Your task to perform on an android device: Open Chrome and go to settings Image 0: 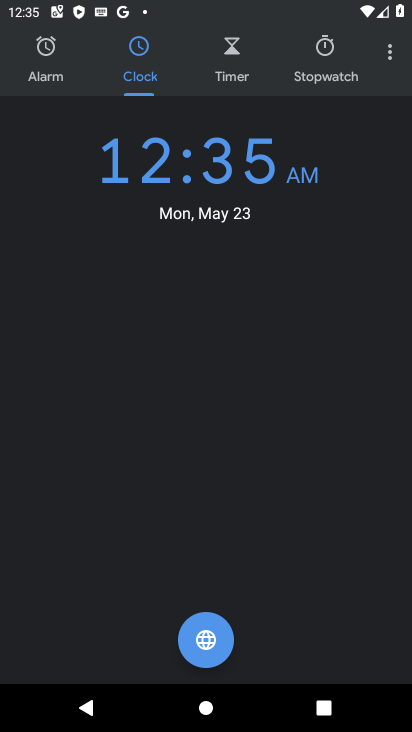
Step 0: click (395, 64)
Your task to perform on an android device: Open Chrome and go to settings Image 1: 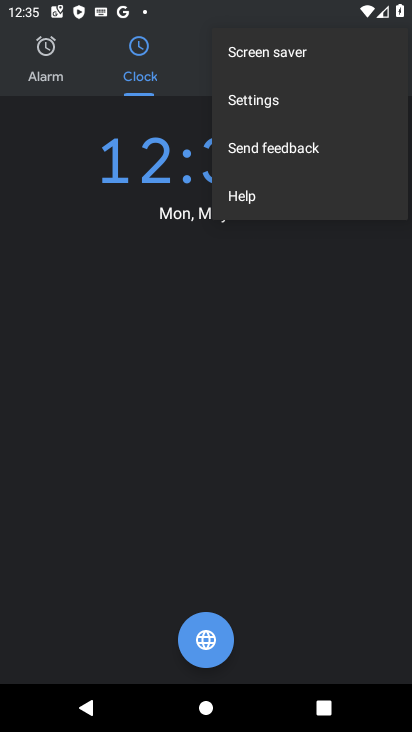
Step 1: press home button
Your task to perform on an android device: Open Chrome and go to settings Image 2: 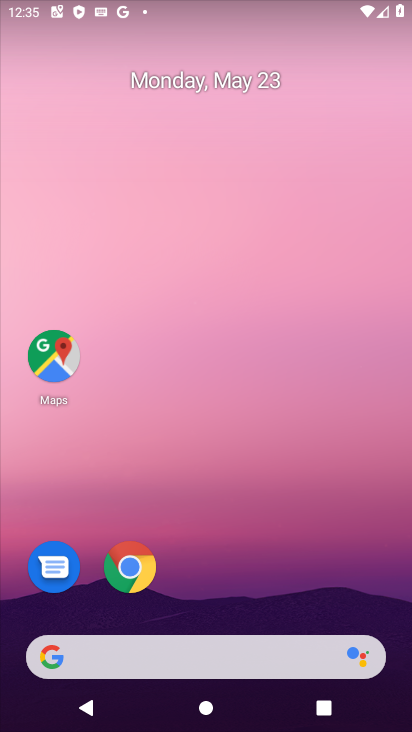
Step 2: click (138, 570)
Your task to perform on an android device: Open Chrome and go to settings Image 3: 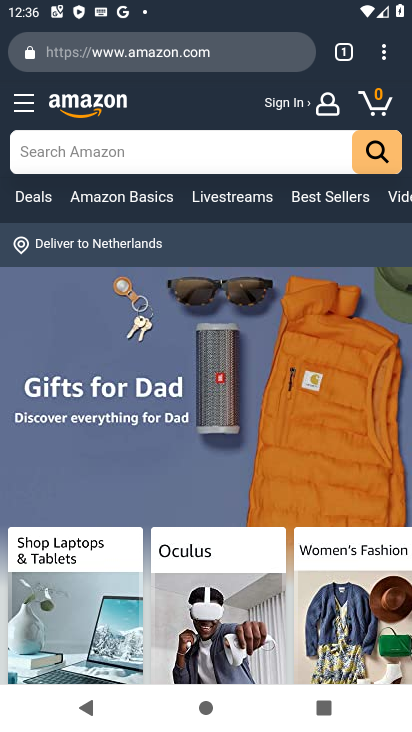
Step 3: click (392, 58)
Your task to perform on an android device: Open Chrome and go to settings Image 4: 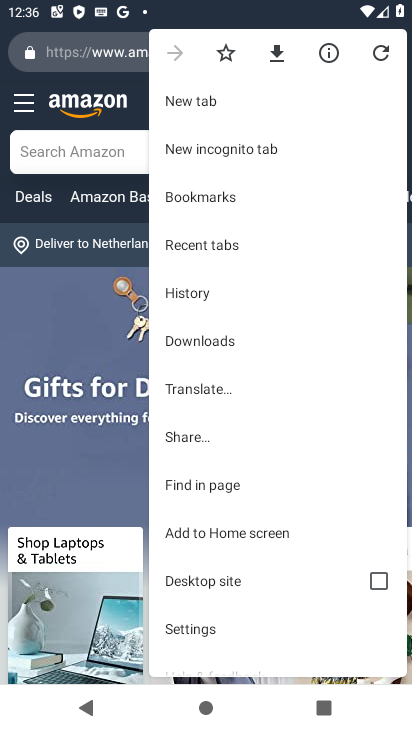
Step 4: click (258, 633)
Your task to perform on an android device: Open Chrome and go to settings Image 5: 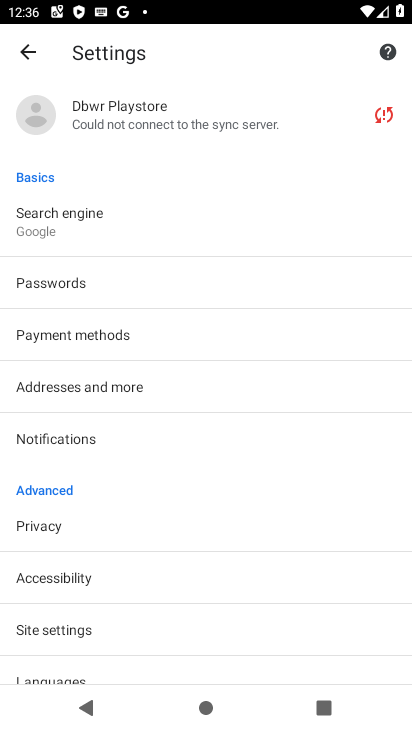
Step 5: task complete